Your task to perform on an android device: Open Google Chrome Image 0: 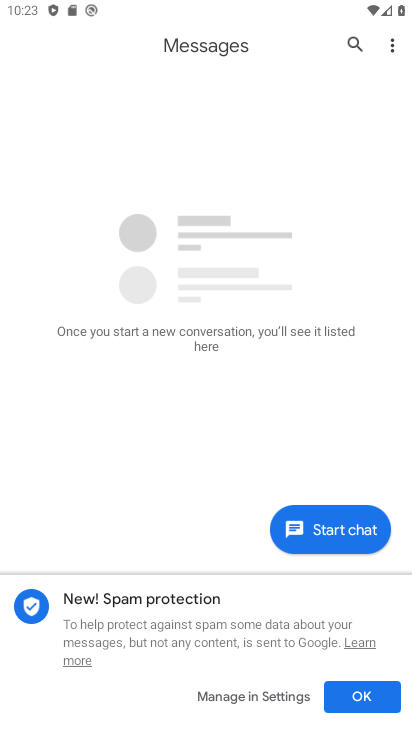
Step 0: press home button
Your task to perform on an android device: Open Google Chrome Image 1: 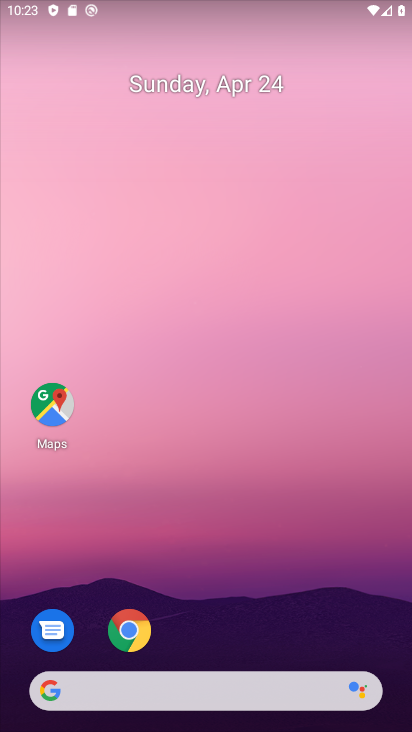
Step 1: click (145, 628)
Your task to perform on an android device: Open Google Chrome Image 2: 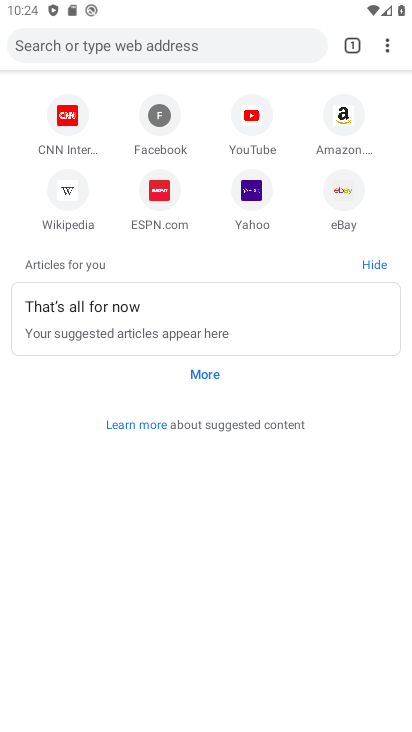
Step 2: task complete